Your task to perform on an android device: set the timer Image 0: 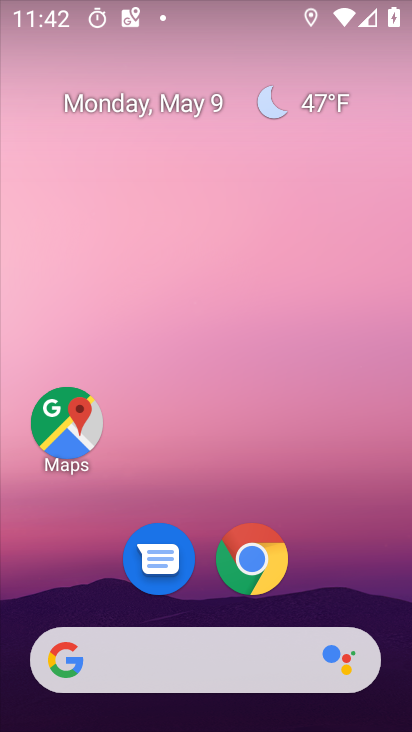
Step 0: drag from (317, 568) to (405, 54)
Your task to perform on an android device: set the timer Image 1: 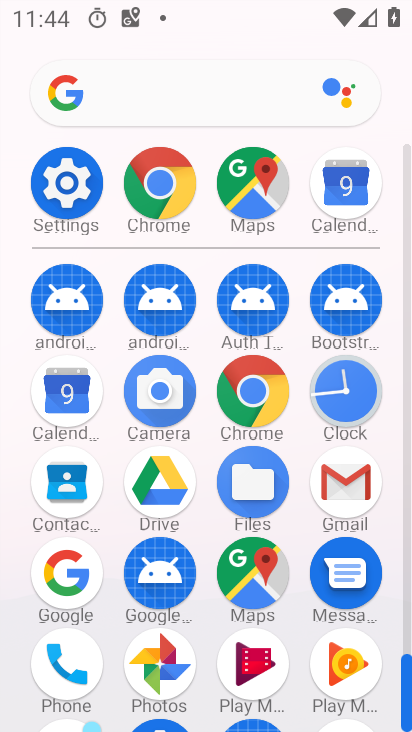
Step 1: click (338, 401)
Your task to perform on an android device: set the timer Image 2: 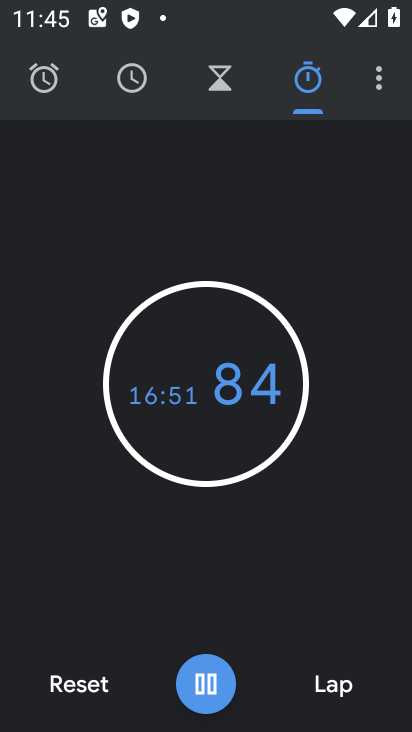
Step 2: task complete